Your task to perform on an android device: What's the weather today? Image 0: 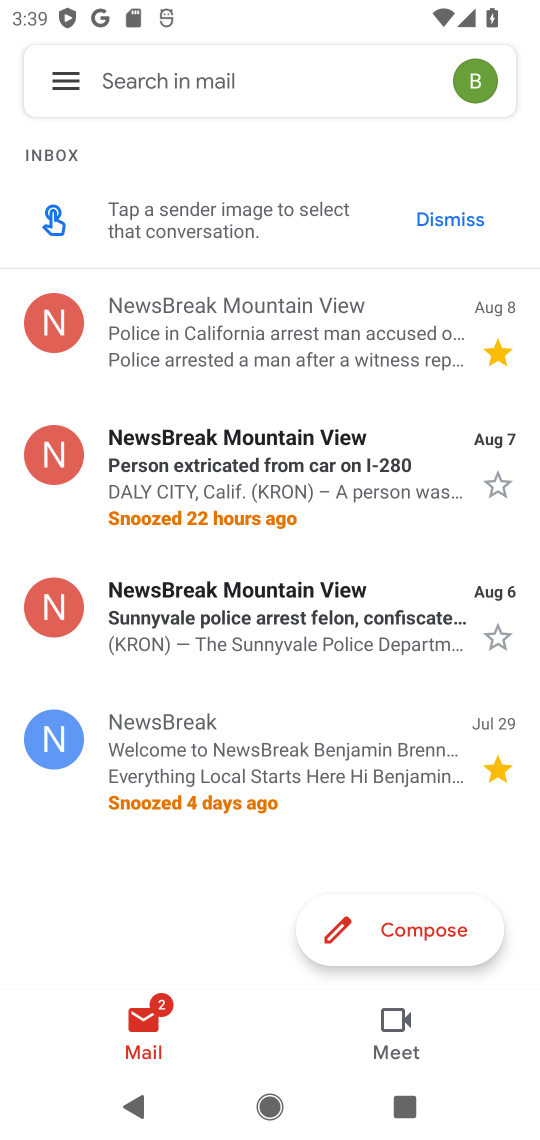
Step 0: press home button
Your task to perform on an android device: What's the weather today? Image 1: 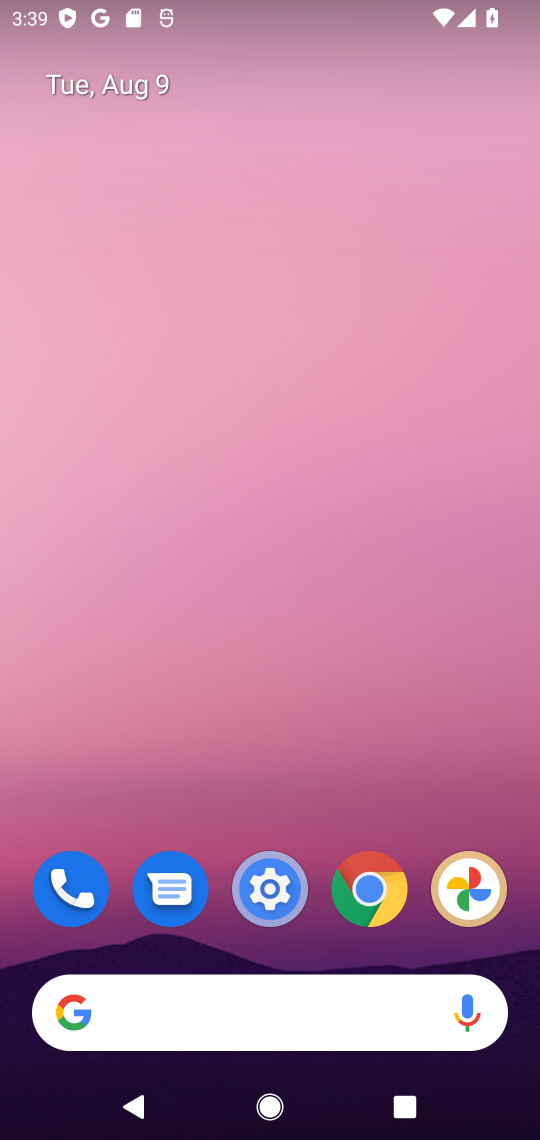
Step 1: click (353, 1012)
Your task to perform on an android device: What's the weather today? Image 2: 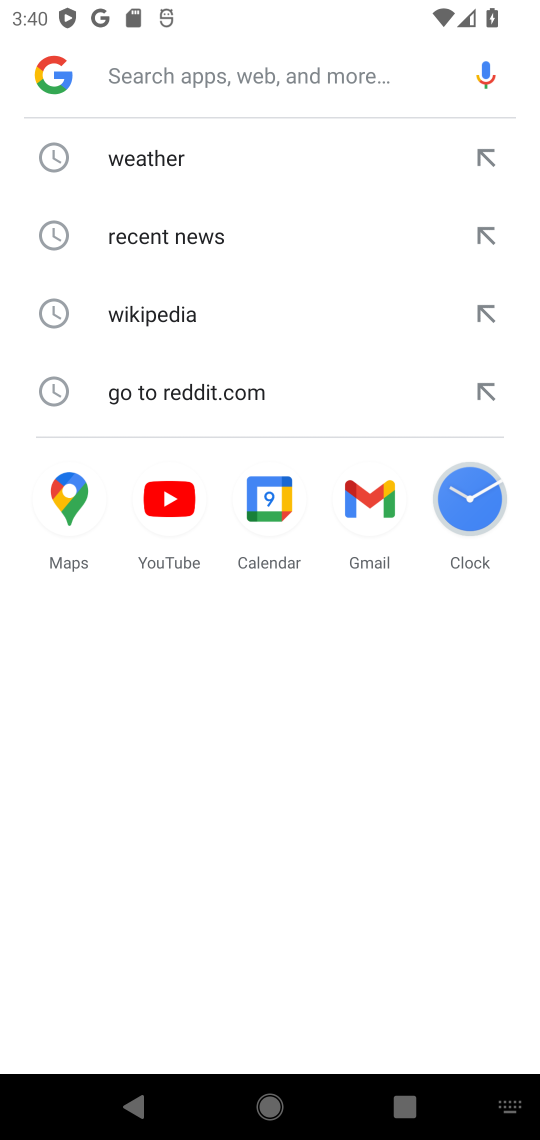
Step 2: click (174, 153)
Your task to perform on an android device: What's the weather today? Image 3: 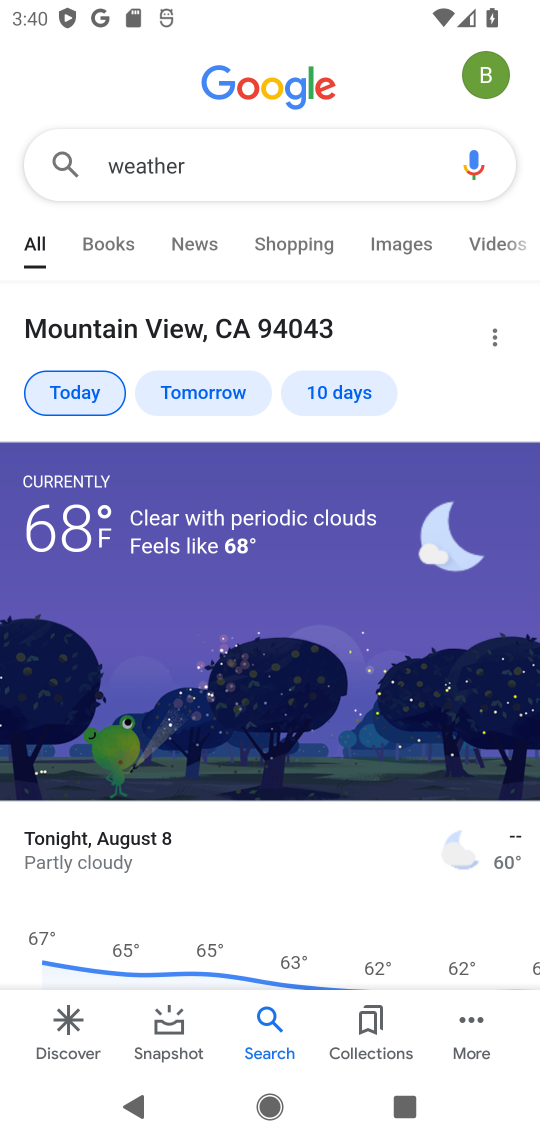
Step 3: click (95, 389)
Your task to perform on an android device: What's the weather today? Image 4: 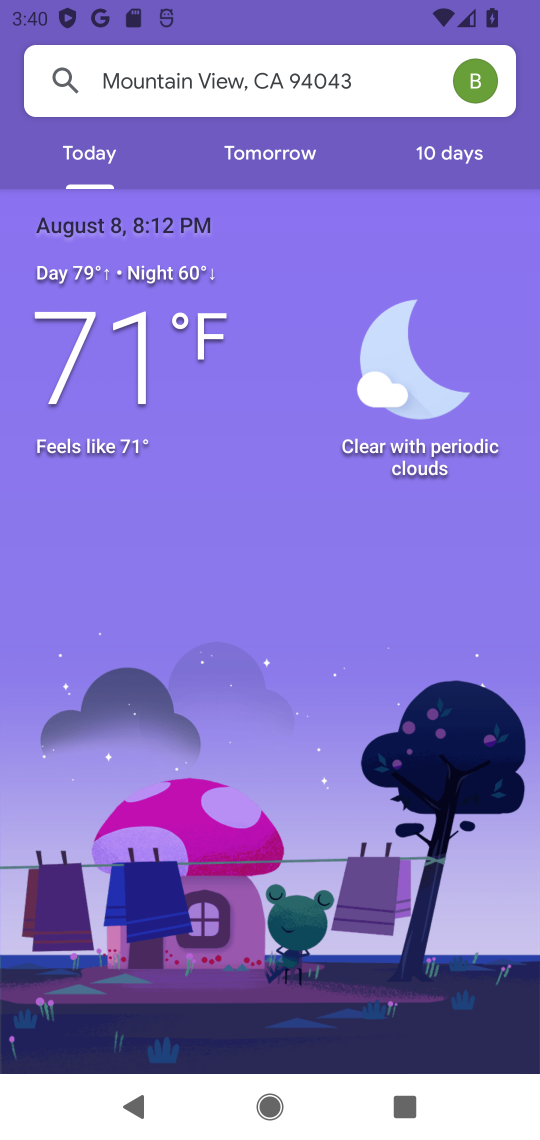
Step 4: task complete